Your task to perform on an android device: turn notification dots on Image 0: 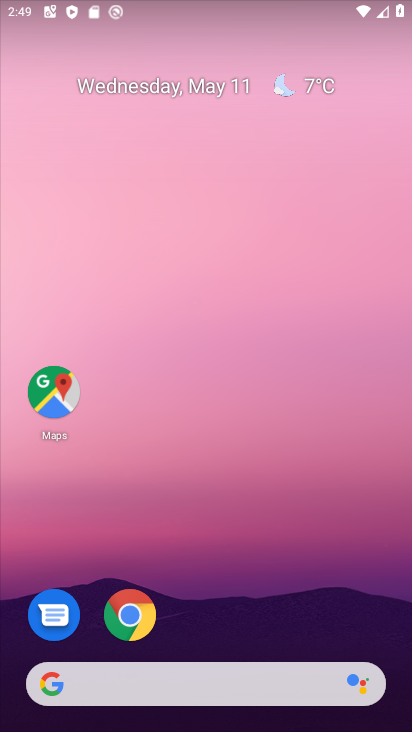
Step 0: drag from (327, 578) to (293, 36)
Your task to perform on an android device: turn notification dots on Image 1: 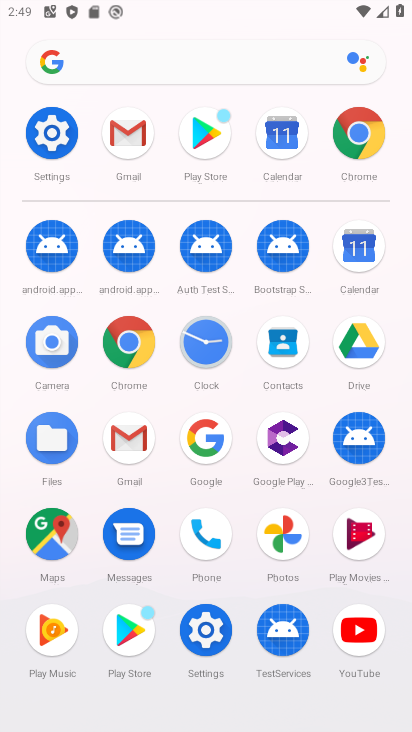
Step 1: click (46, 140)
Your task to perform on an android device: turn notification dots on Image 2: 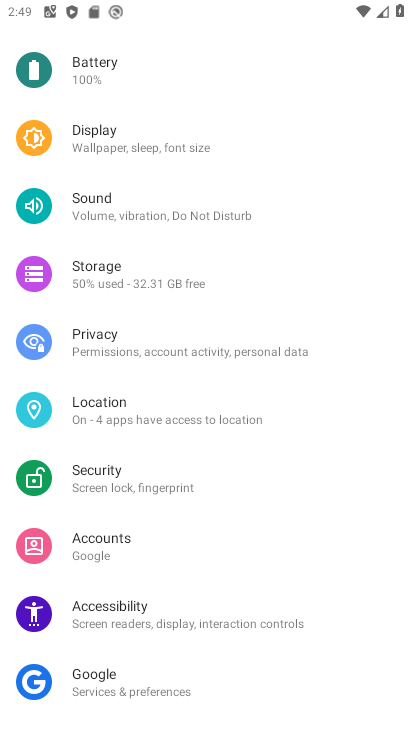
Step 2: drag from (189, 593) to (185, 698)
Your task to perform on an android device: turn notification dots on Image 3: 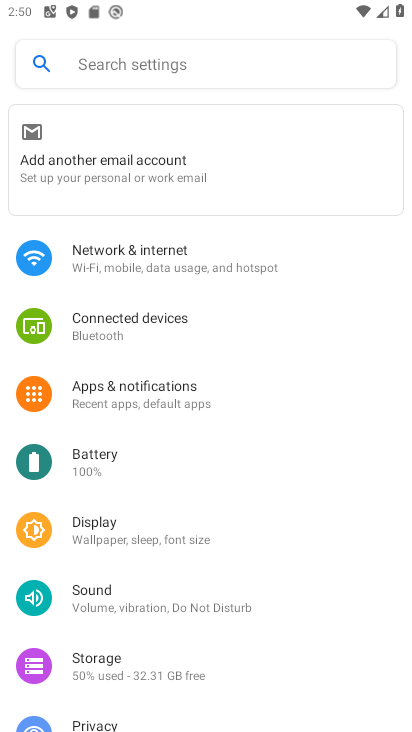
Step 3: click (141, 397)
Your task to perform on an android device: turn notification dots on Image 4: 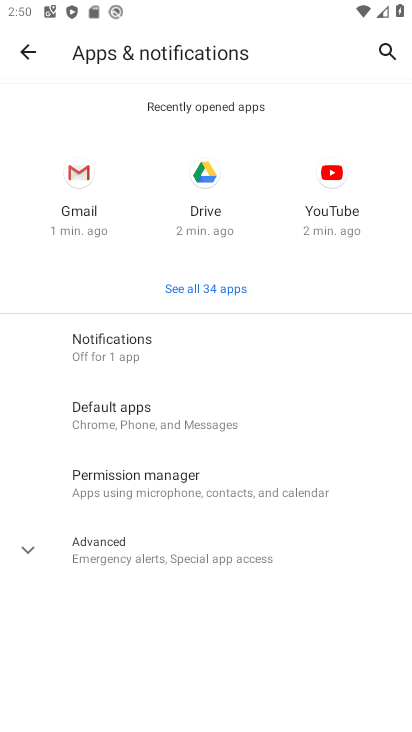
Step 4: click (153, 350)
Your task to perform on an android device: turn notification dots on Image 5: 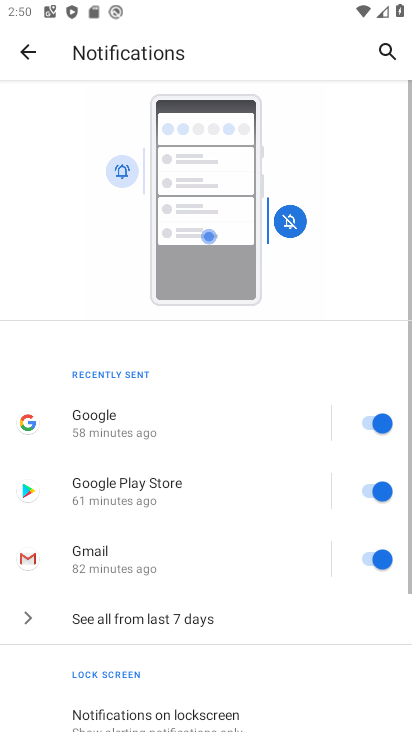
Step 5: drag from (249, 633) to (270, 204)
Your task to perform on an android device: turn notification dots on Image 6: 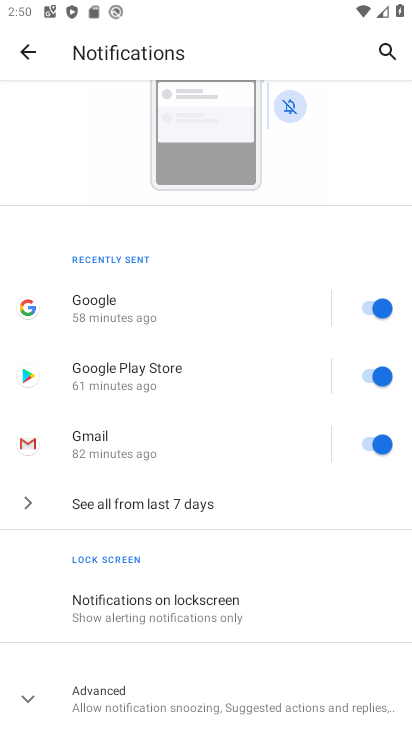
Step 6: click (121, 708)
Your task to perform on an android device: turn notification dots on Image 7: 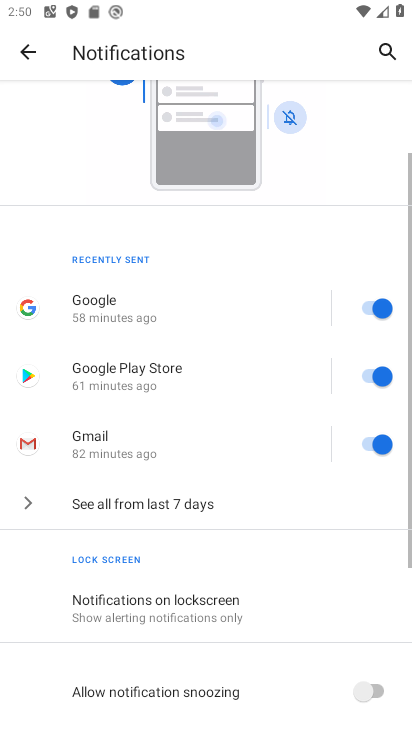
Step 7: task complete